Your task to perform on an android device: add a contact in the contacts app Image 0: 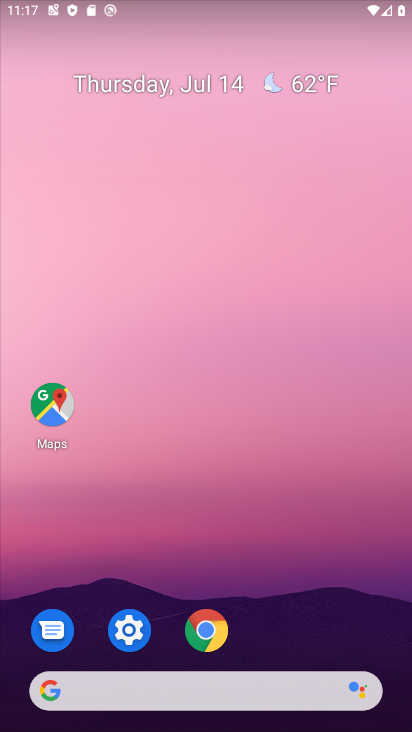
Step 0: drag from (403, 515) to (281, 48)
Your task to perform on an android device: add a contact in the contacts app Image 1: 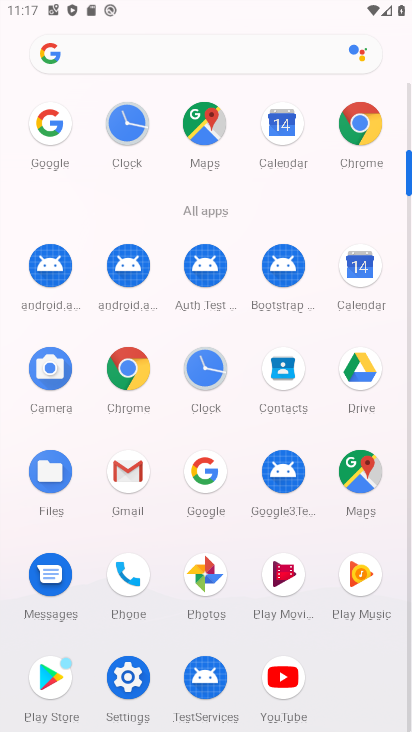
Step 1: click (276, 372)
Your task to perform on an android device: add a contact in the contacts app Image 2: 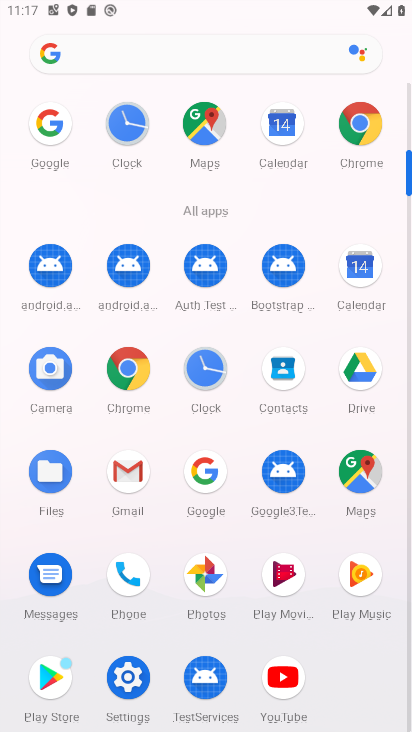
Step 2: click (276, 372)
Your task to perform on an android device: add a contact in the contacts app Image 3: 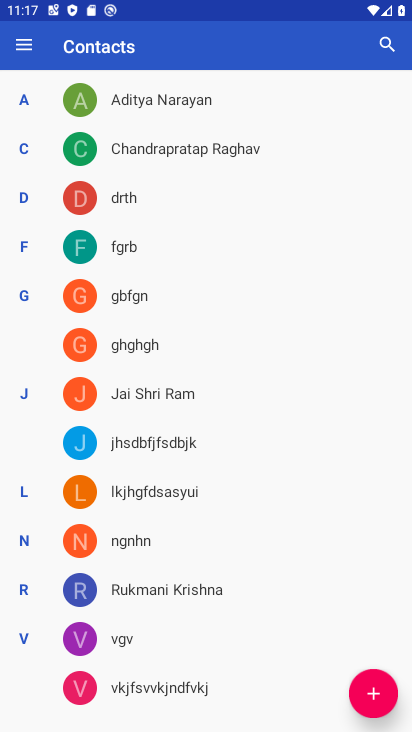
Step 3: click (383, 688)
Your task to perform on an android device: add a contact in the contacts app Image 4: 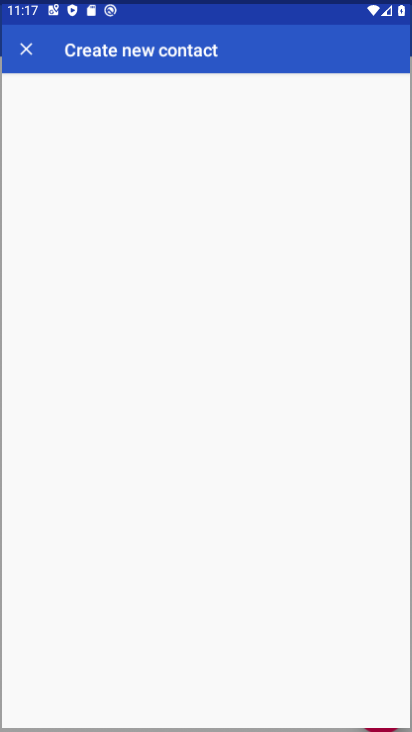
Step 4: click (371, 692)
Your task to perform on an android device: add a contact in the contacts app Image 5: 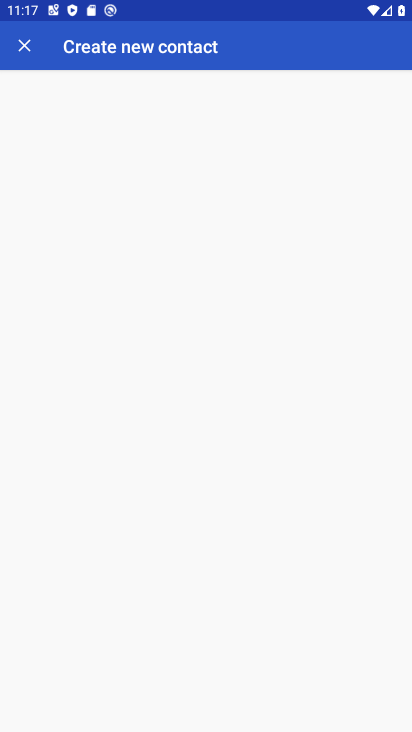
Step 5: click (371, 693)
Your task to perform on an android device: add a contact in the contacts app Image 6: 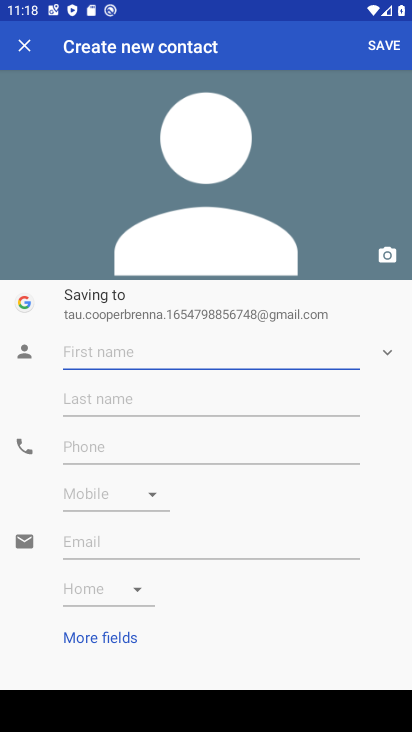
Step 6: type "jhcjhjhz"
Your task to perform on an android device: add a contact in the contacts app Image 7: 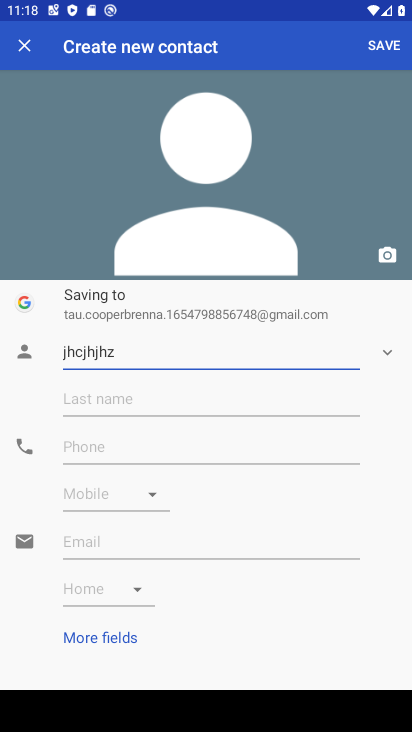
Step 7: click (85, 444)
Your task to perform on an android device: add a contact in the contacts app Image 8: 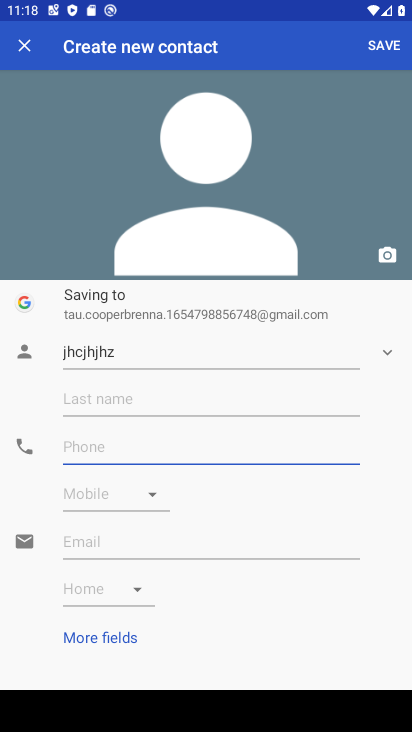
Step 8: click (90, 449)
Your task to perform on an android device: add a contact in the contacts app Image 9: 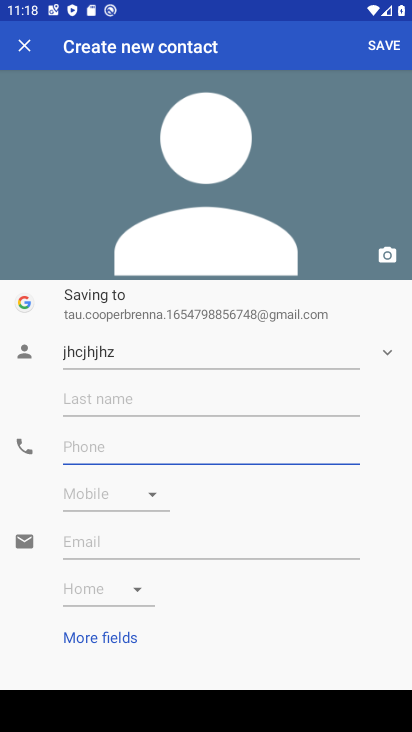
Step 9: type "8756583375987"
Your task to perform on an android device: add a contact in the contacts app Image 10: 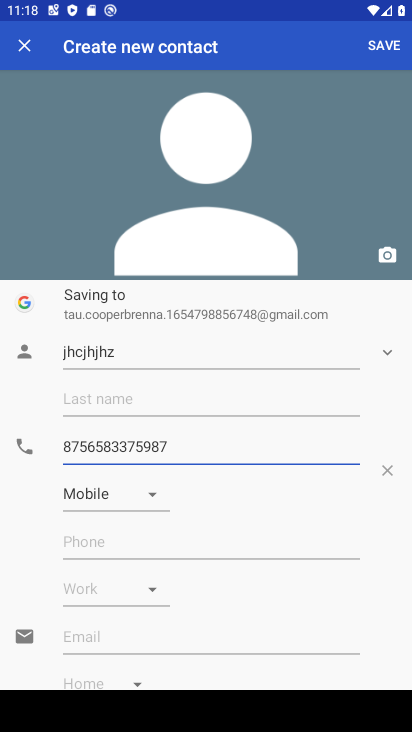
Step 10: click (383, 44)
Your task to perform on an android device: add a contact in the contacts app Image 11: 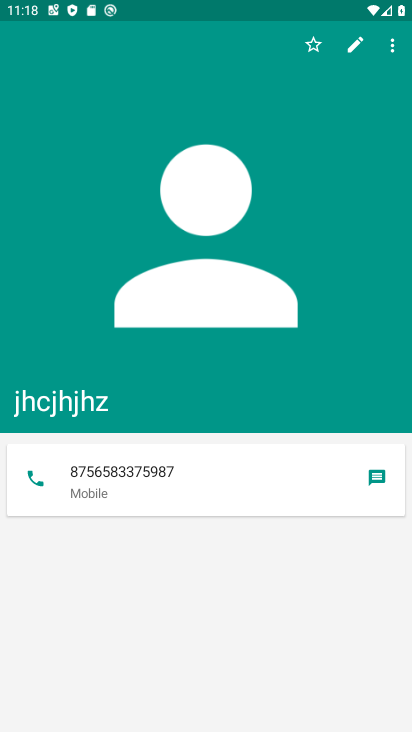
Step 11: task complete